Your task to perform on an android device: Check the weather Image 0: 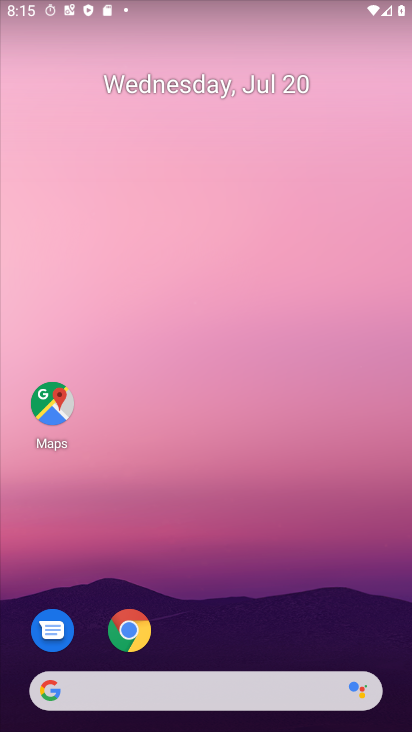
Step 0: drag from (201, 699) to (226, 268)
Your task to perform on an android device: Check the weather Image 1: 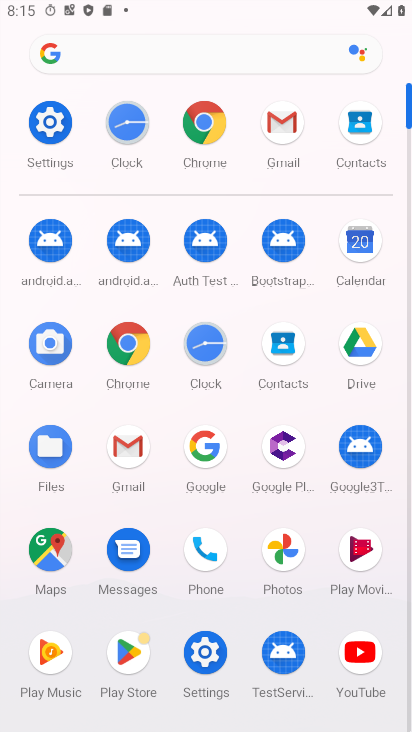
Step 1: click (213, 453)
Your task to perform on an android device: Check the weather Image 2: 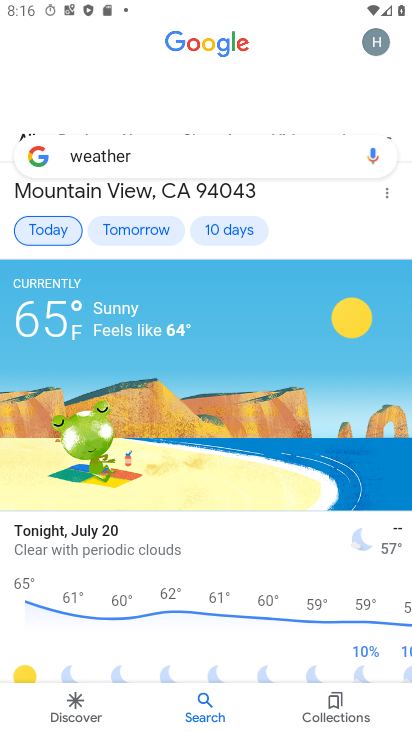
Step 2: task complete